Your task to perform on an android device: find snoozed emails in the gmail app Image 0: 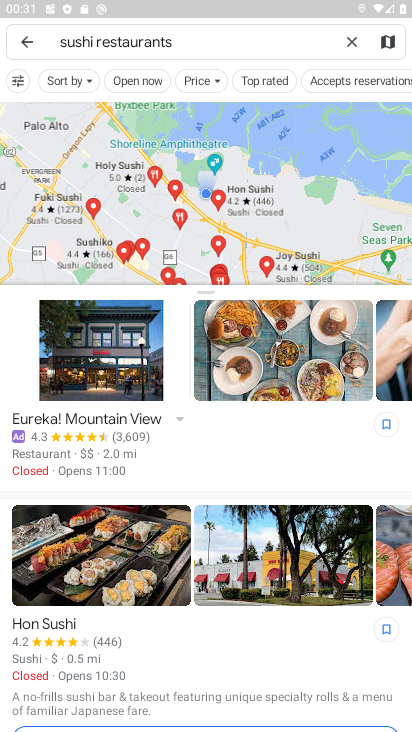
Step 0: press home button
Your task to perform on an android device: find snoozed emails in the gmail app Image 1: 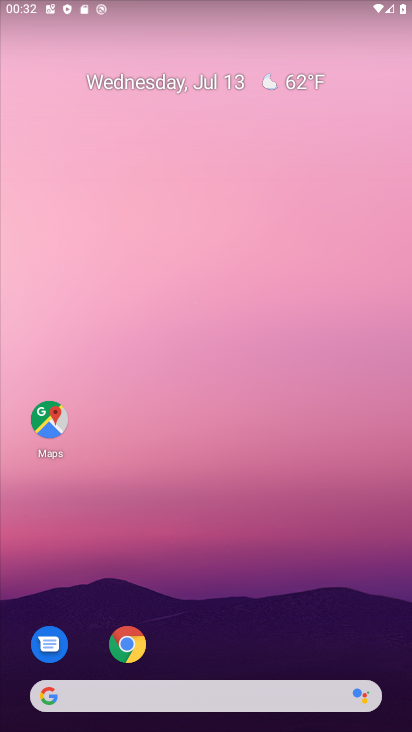
Step 1: drag from (192, 676) to (69, 77)
Your task to perform on an android device: find snoozed emails in the gmail app Image 2: 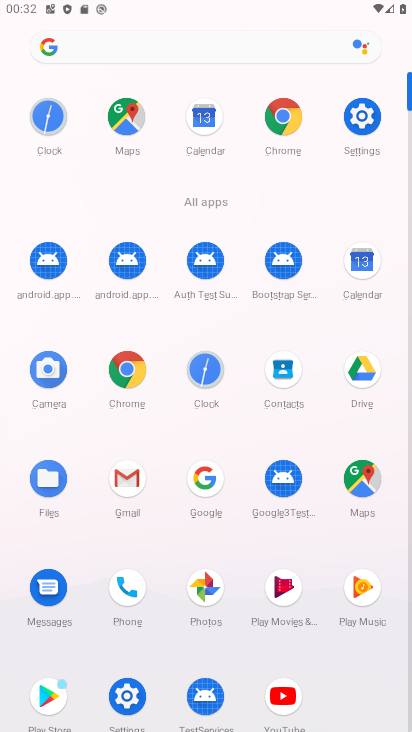
Step 2: click (134, 477)
Your task to perform on an android device: find snoozed emails in the gmail app Image 3: 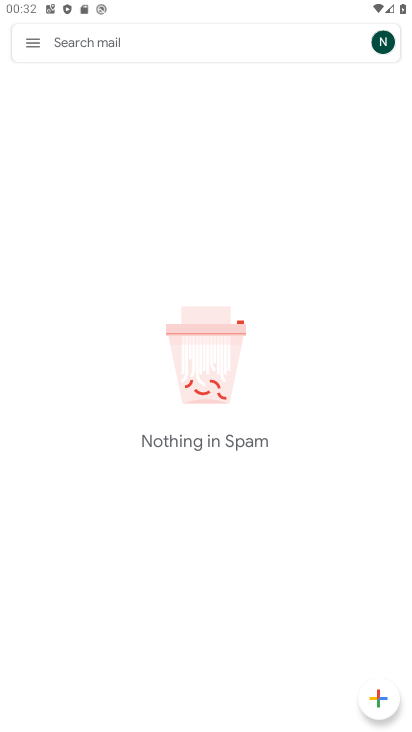
Step 3: click (30, 44)
Your task to perform on an android device: find snoozed emails in the gmail app Image 4: 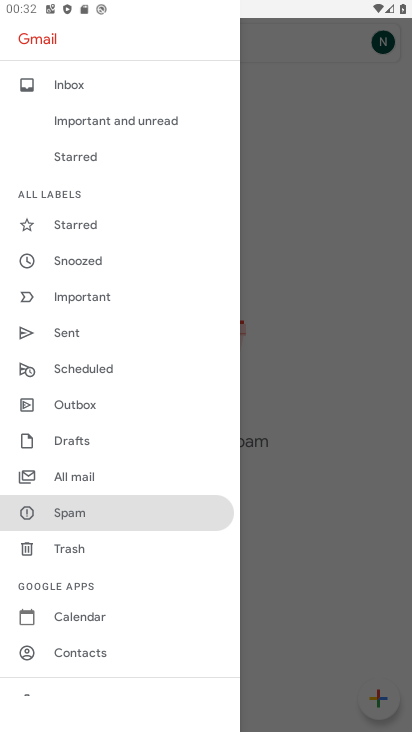
Step 4: click (64, 267)
Your task to perform on an android device: find snoozed emails in the gmail app Image 5: 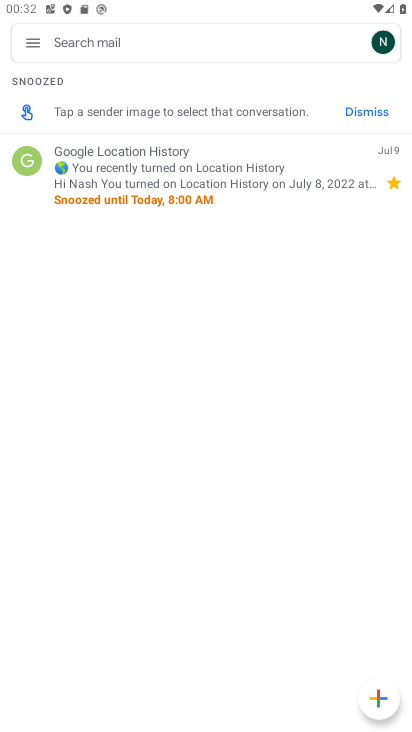
Step 5: task complete